Your task to perform on an android device: Open Android settings Image 0: 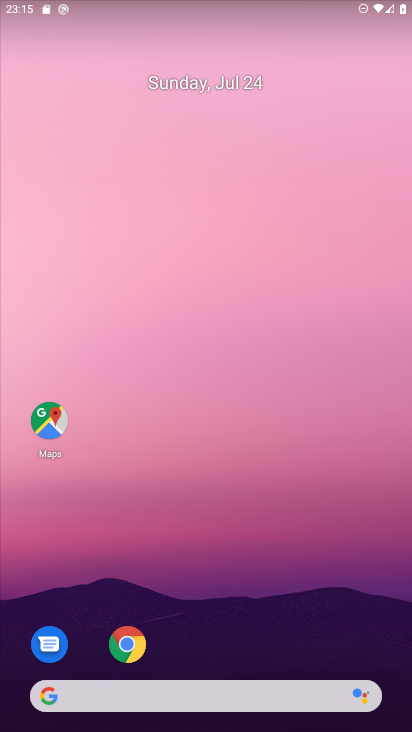
Step 0: drag from (341, 661) to (390, 260)
Your task to perform on an android device: Open Android settings Image 1: 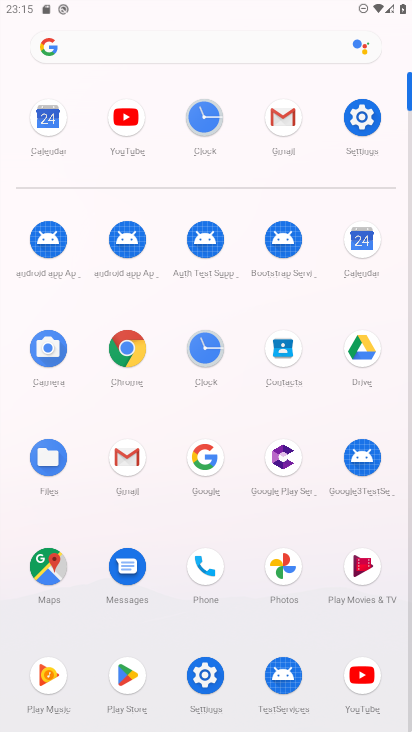
Step 1: click (200, 674)
Your task to perform on an android device: Open Android settings Image 2: 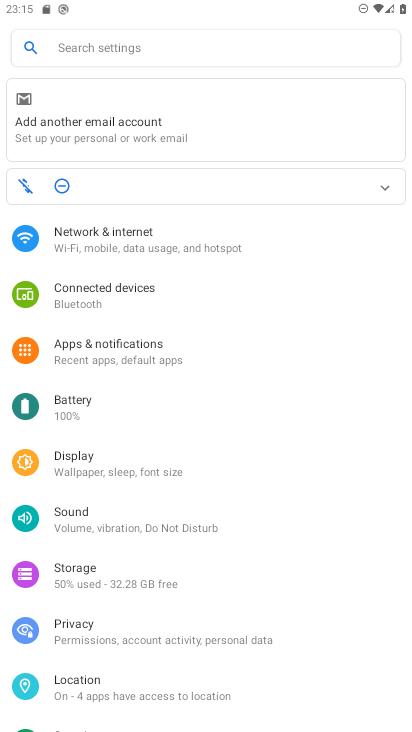
Step 2: drag from (317, 673) to (356, 279)
Your task to perform on an android device: Open Android settings Image 3: 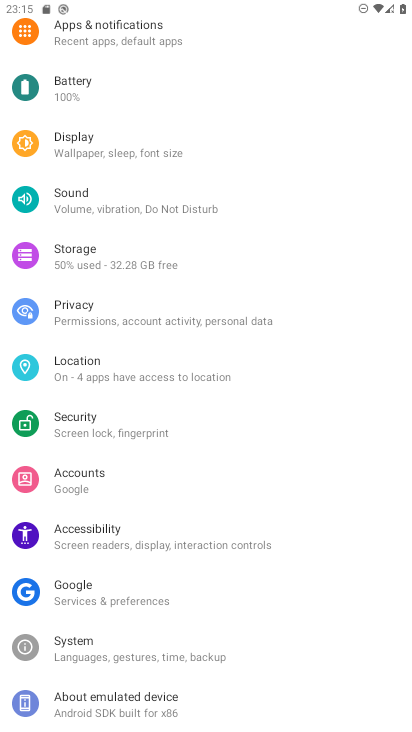
Step 3: click (118, 704)
Your task to perform on an android device: Open Android settings Image 4: 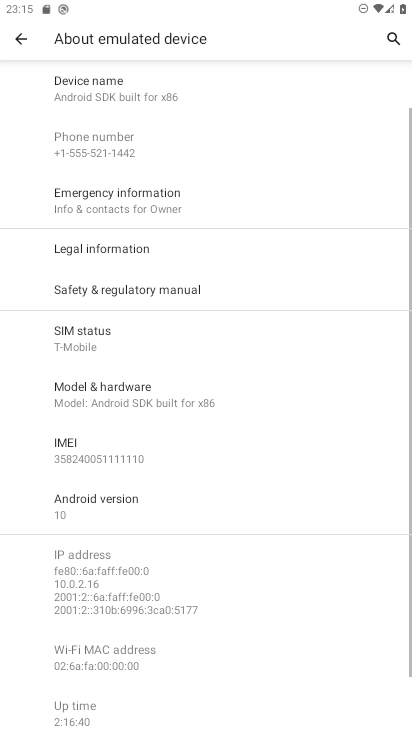
Step 4: task complete